Your task to perform on an android device: What's on my calendar today? Image 0: 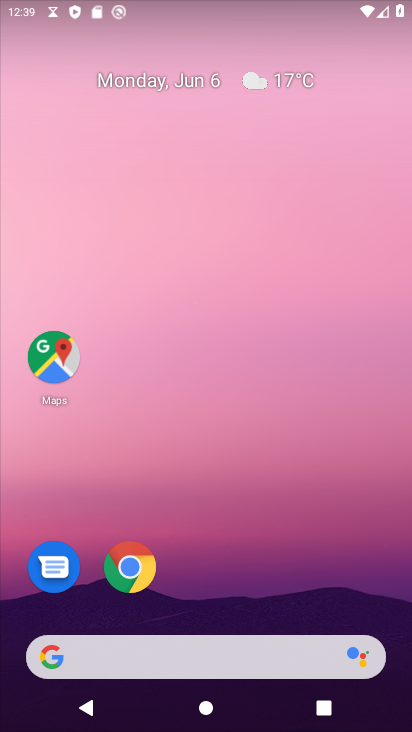
Step 0: drag from (226, 731) to (214, 26)
Your task to perform on an android device: What's on my calendar today? Image 1: 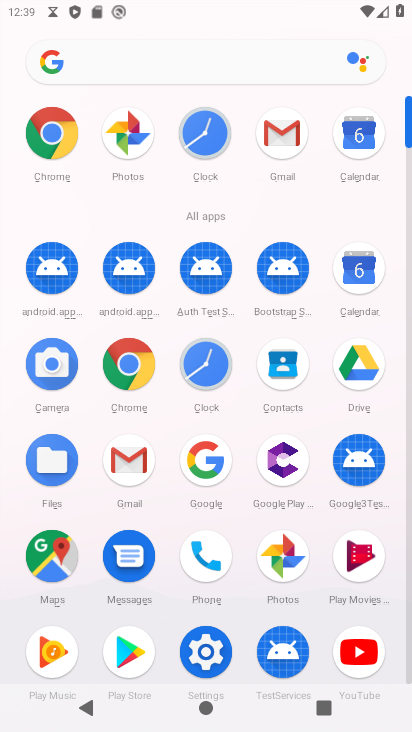
Step 1: click (359, 274)
Your task to perform on an android device: What's on my calendar today? Image 2: 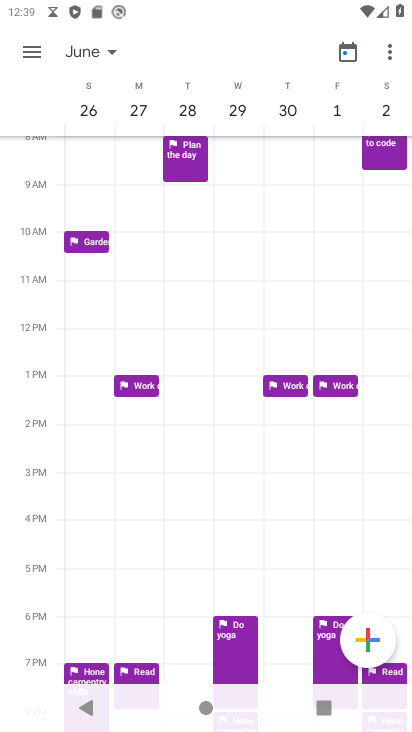
Step 2: click (114, 46)
Your task to perform on an android device: What's on my calendar today? Image 3: 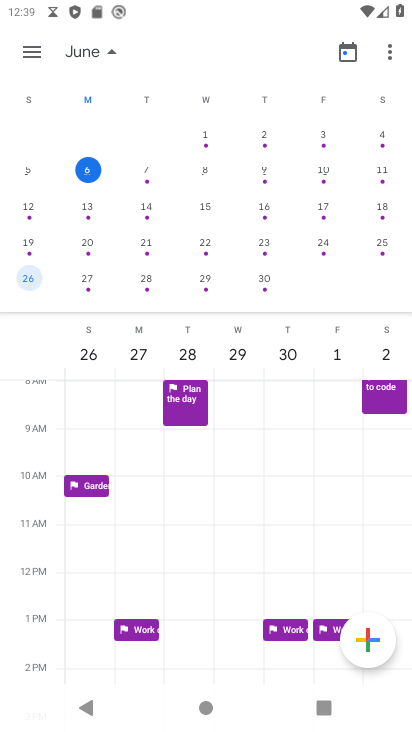
Step 3: click (87, 168)
Your task to perform on an android device: What's on my calendar today? Image 4: 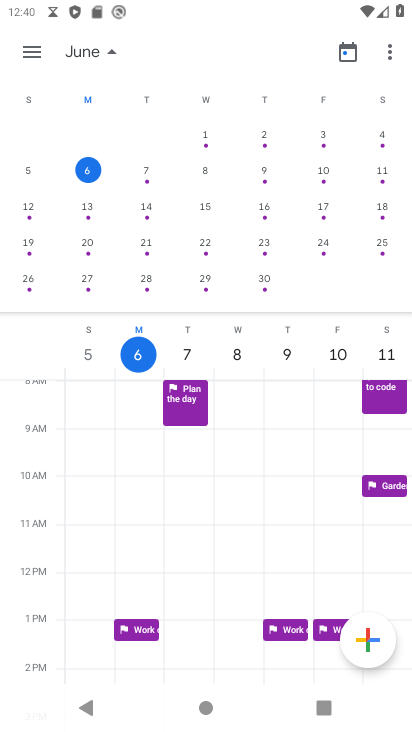
Step 4: click (85, 166)
Your task to perform on an android device: What's on my calendar today? Image 5: 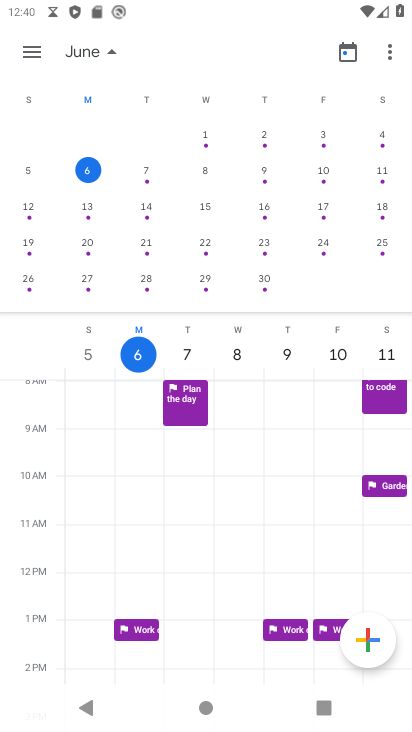
Step 5: click (142, 356)
Your task to perform on an android device: What's on my calendar today? Image 6: 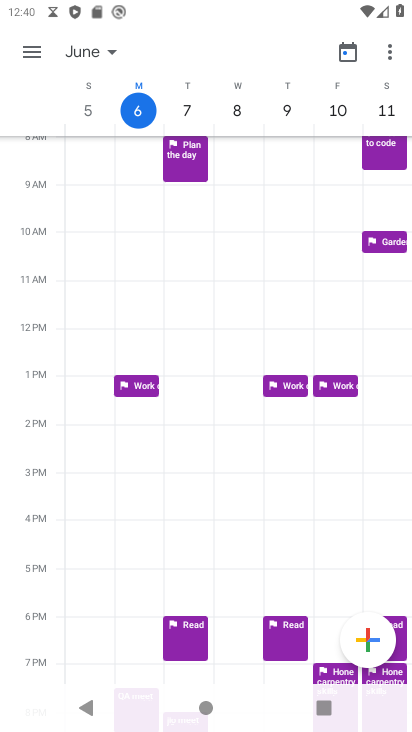
Step 6: click (138, 107)
Your task to perform on an android device: What's on my calendar today? Image 7: 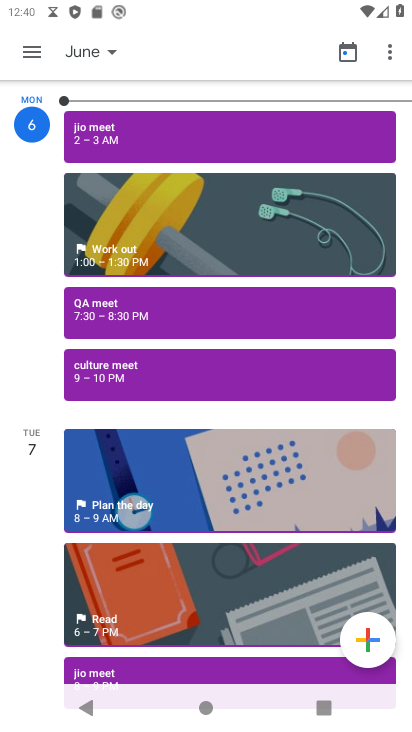
Step 7: task complete